Your task to perform on an android device: Search for sushi restaurants on Maps Image 0: 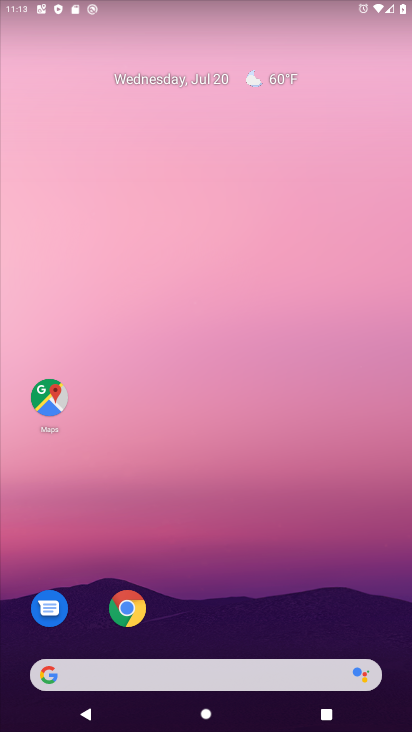
Step 0: click (51, 387)
Your task to perform on an android device: Search for sushi restaurants on Maps Image 1: 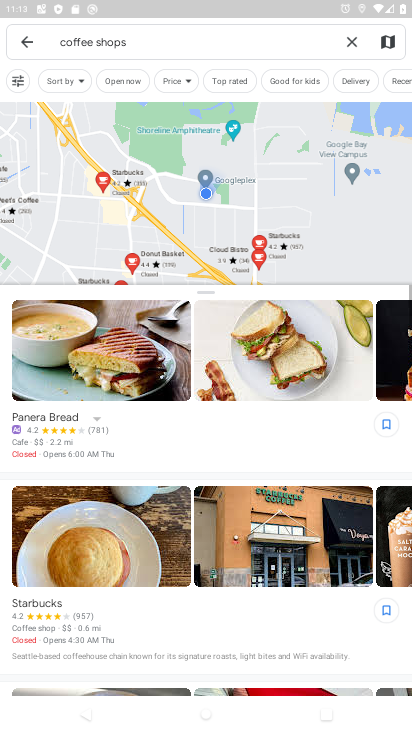
Step 1: click (305, 36)
Your task to perform on an android device: Search for sushi restaurants on Maps Image 2: 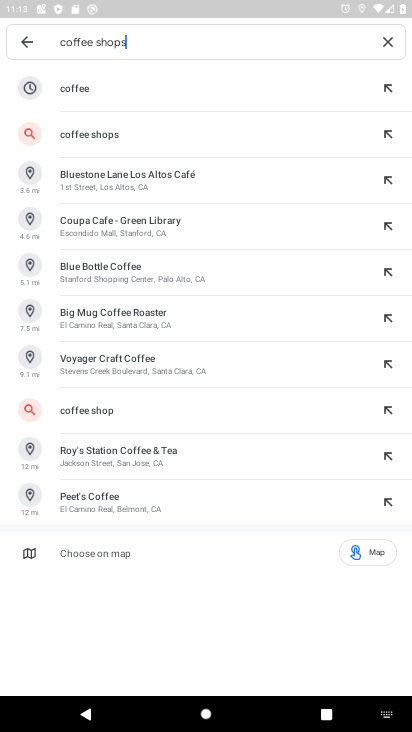
Step 2: click (387, 33)
Your task to perform on an android device: Search for sushi restaurants on Maps Image 3: 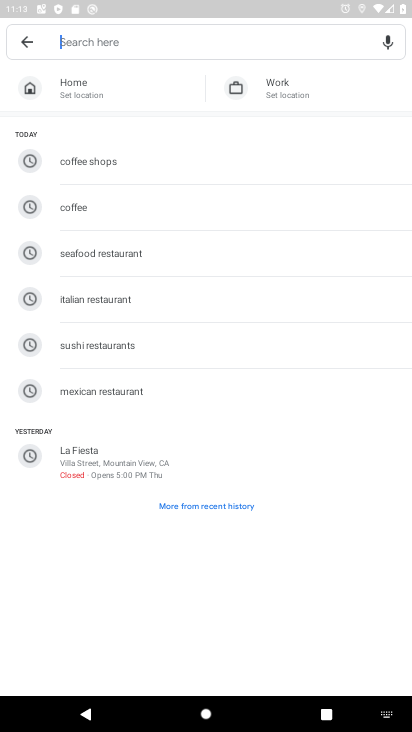
Step 3: type "sushi restaurants"
Your task to perform on an android device: Search for sushi restaurants on Maps Image 4: 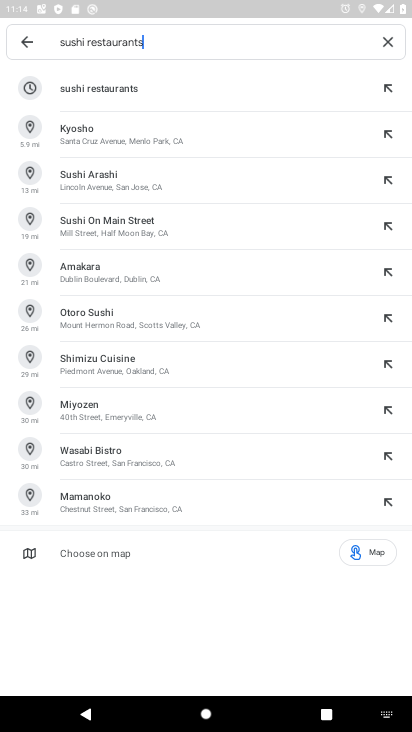
Step 4: click (177, 103)
Your task to perform on an android device: Search for sushi restaurants on Maps Image 5: 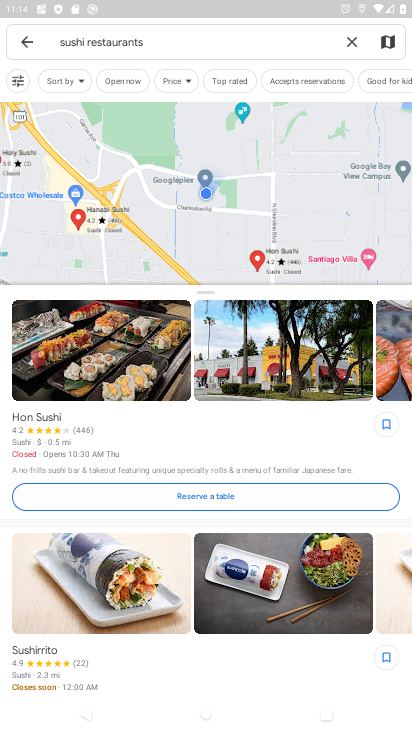
Step 5: task complete